Your task to perform on an android device: turn off translation in the chrome app Image 0: 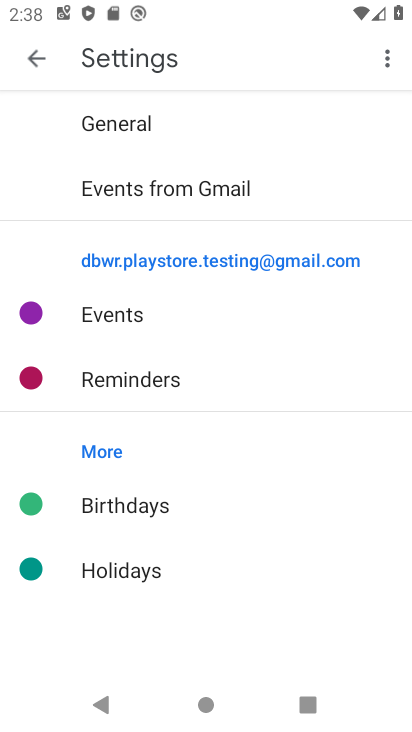
Step 0: press home button
Your task to perform on an android device: turn off translation in the chrome app Image 1: 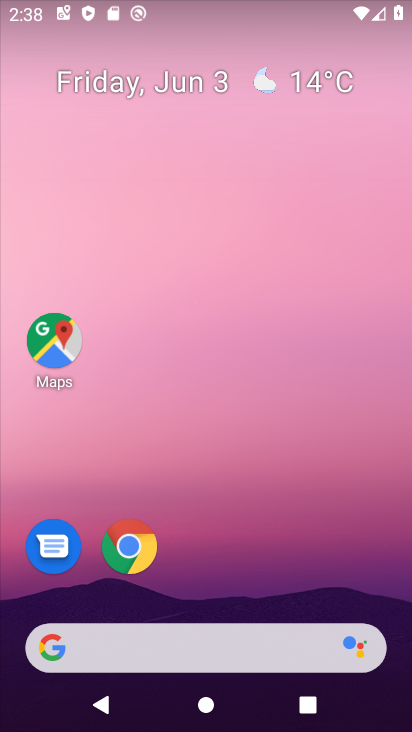
Step 1: drag from (345, 556) to (379, 2)
Your task to perform on an android device: turn off translation in the chrome app Image 2: 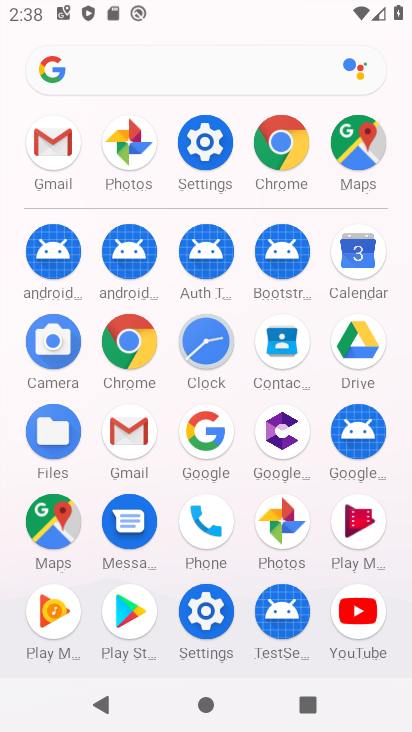
Step 2: click (282, 144)
Your task to perform on an android device: turn off translation in the chrome app Image 3: 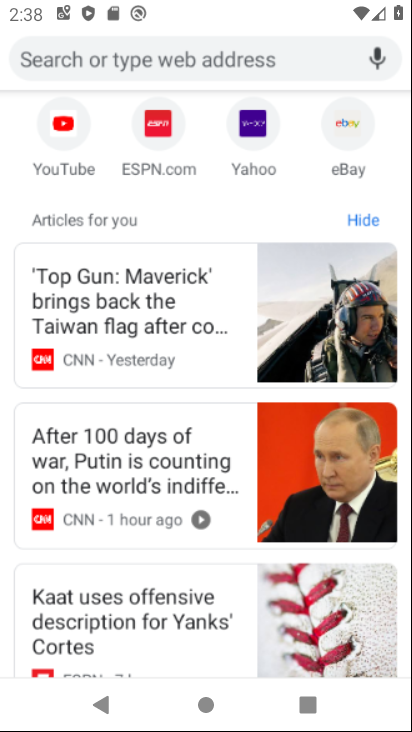
Step 3: drag from (295, 190) to (281, 620)
Your task to perform on an android device: turn off translation in the chrome app Image 4: 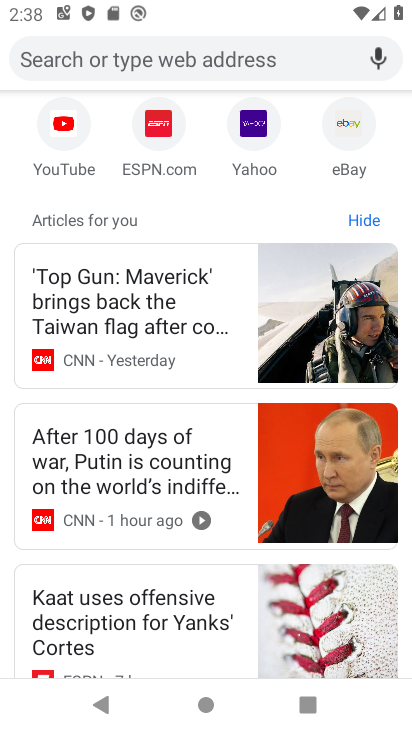
Step 4: drag from (297, 232) to (216, 623)
Your task to perform on an android device: turn off translation in the chrome app Image 5: 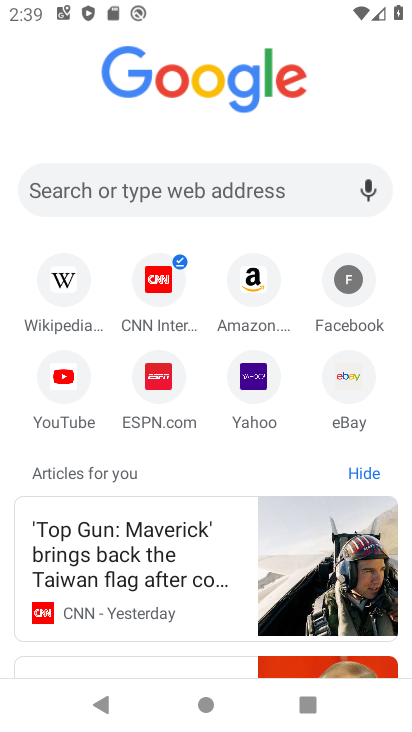
Step 5: drag from (311, 147) to (306, 650)
Your task to perform on an android device: turn off translation in the chrome app Image 6: 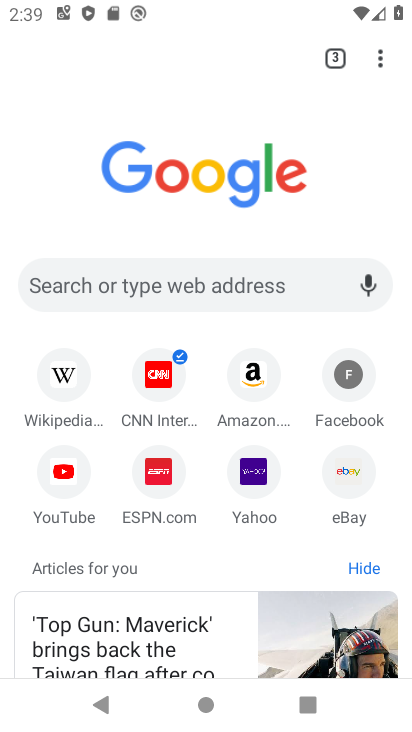
Step 6: drag from (393, 64) to (185, 502)
Your task to perform on an android device: turn off translation in the chrome app Image 7: 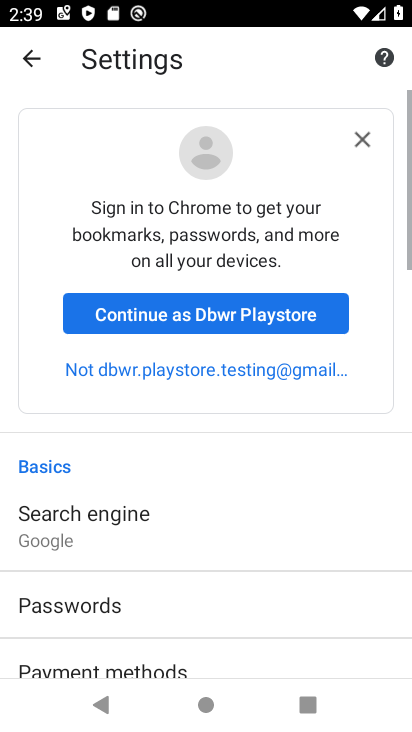
Step 7: drag from (141, 600) to (261, 65)
Your task to perform on an android device: turn off translation in the chrome app Image 8: 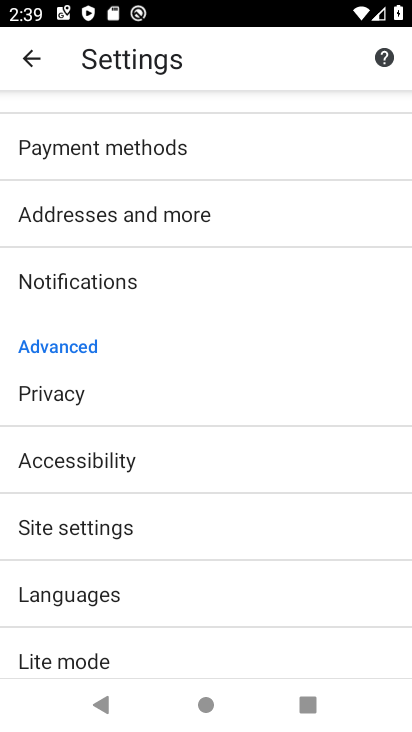
Step 8: drag from (91, 585) to (153, 286)
Your task to perform on an android device: turn off translation in the chrome app Image 9: 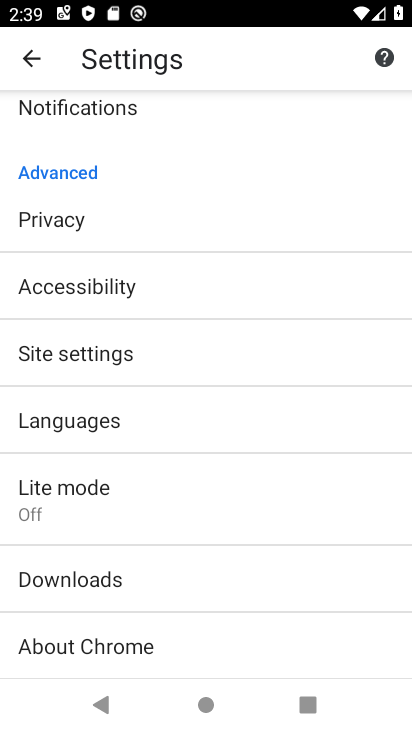
Step 9: click (95, 412)
Your task to perform on an android device: turn off translation in the chrome app Image 10: 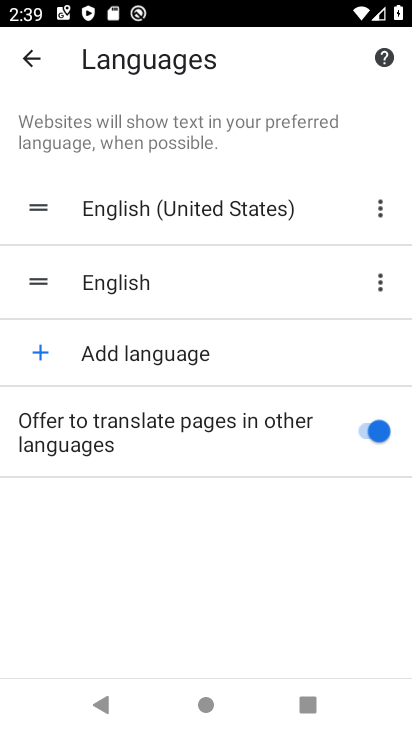
Step 10: click (359, 430)
Your task to perform on an android device: turn off translation in the chrome app Image 11: 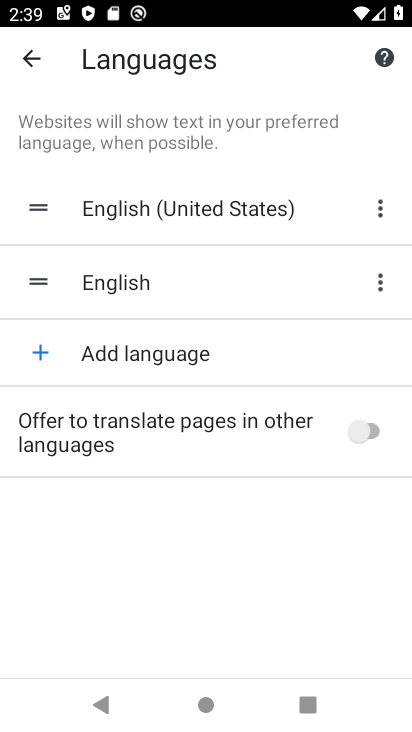
Step 11: task complete